Your task to perform on an android device: Open display settings Image 0: 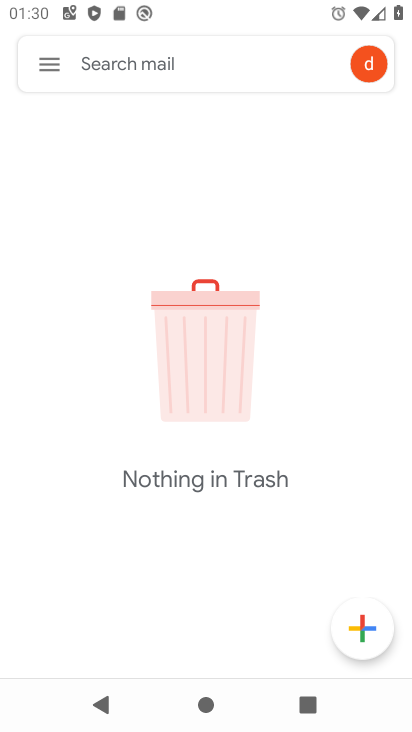
Step 0: press home button
Your task to perform on an android device: Open display settings Image 1: 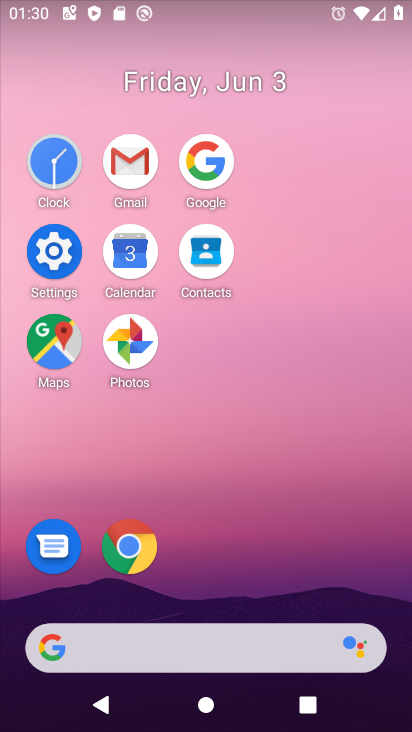
Step 1: click (73, 271)
Your task to perform on an android device: Open display settings Image 2: 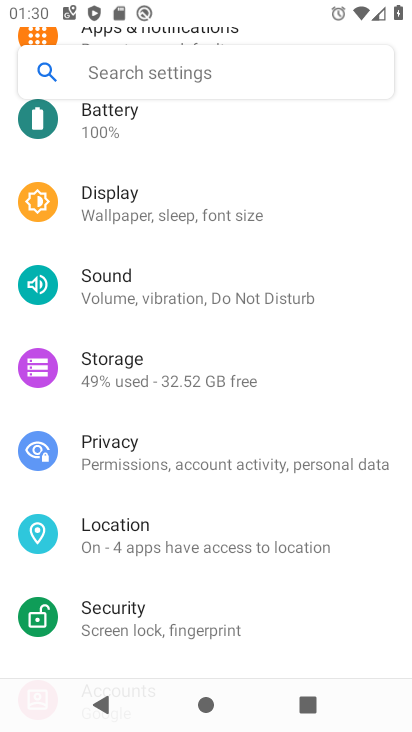
Step 2: click (163, 214)
Your task to perform on an android device: Open display settings Image 3: 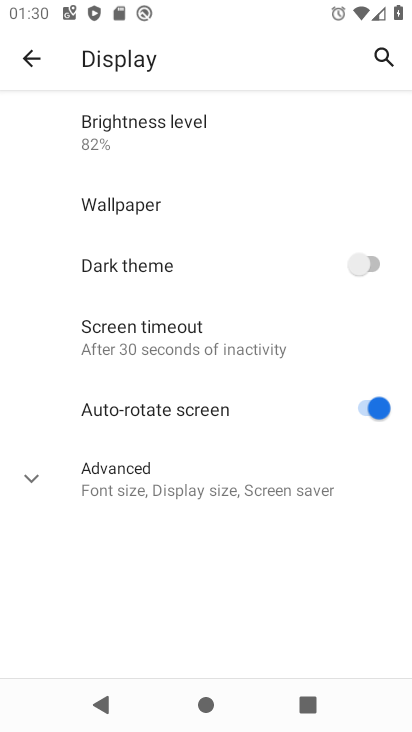
Step 3: task complete